Your task to perform on an android device: Turn on the flashlight Image 0: 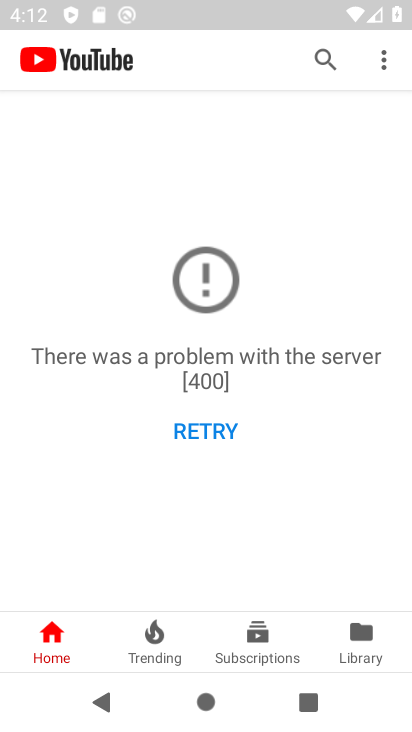
Step 0: press home button
Your task to perform on an android device: Turn on the flashlight Image 1: 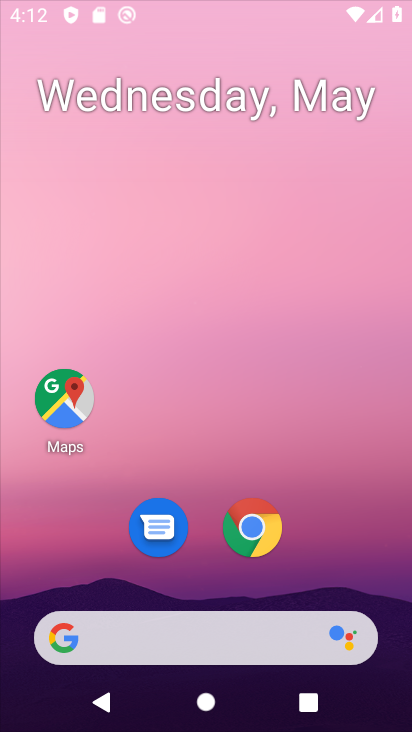
Step 1: task complete